Your task to perform on an android device: Go to internet settings Image 0: 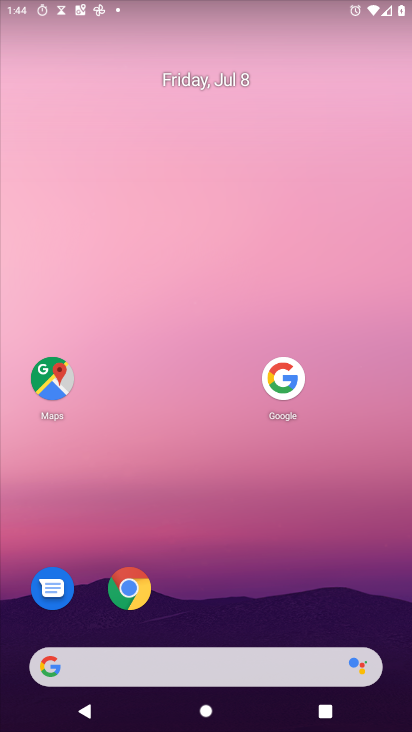
Step 0: press home button
Your task to perform on an android device: Go to internet settings Image 1: 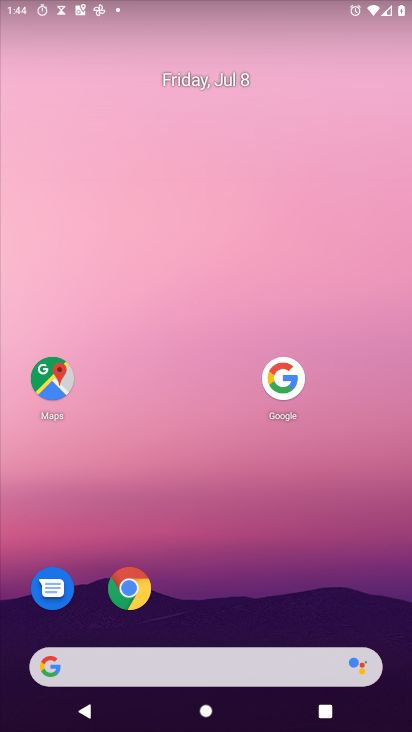
Step 1: drag from (202, 677) to (277, 63)
Your task to perform on an android device: Go to internet settings Image 2: 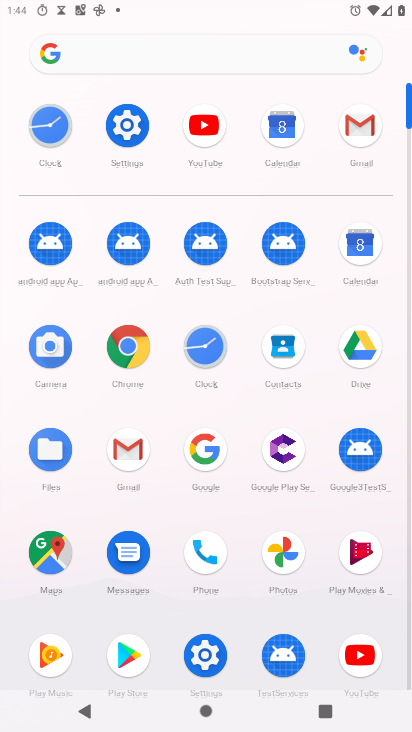
Step 2: click (128, 129)
Your task to perform on an android device: Go to internet settings Image 3: 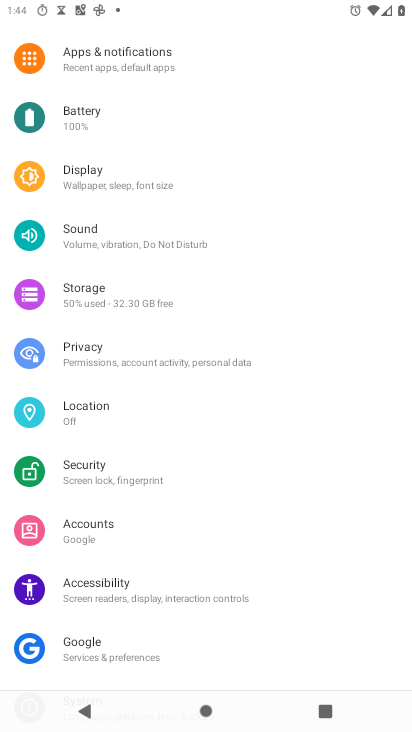
Step 3: drag from (244, 100) to (225, 582)
Your task to perform on an android device: Go to internet settings Image 4: 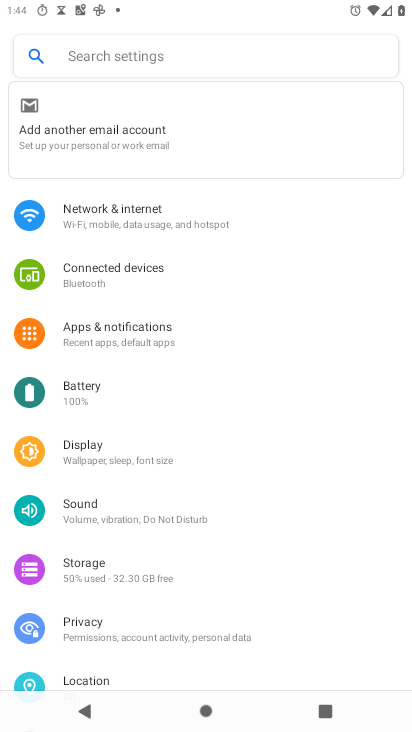
Step 4: click (140, 207)
Your task to perform on an android device: Go to internet settings Image 5: 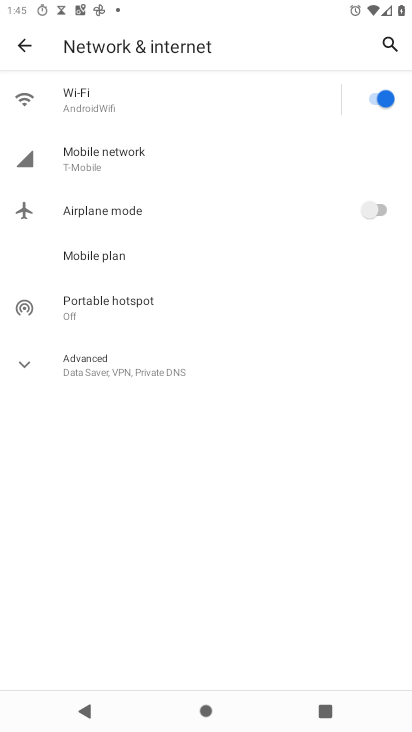
Step 5: task complete